Your task to perform on an android device: turn pop-ups off in chrome Image 0: 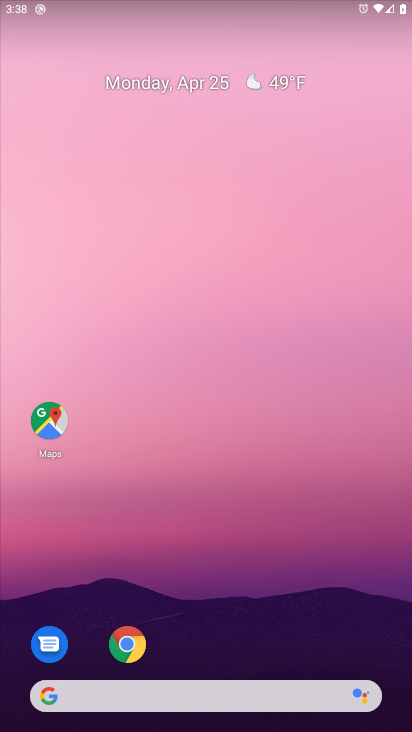
Step 0: click (122, 655)
Your task to perform on an android device: turn pop-ups off in chrome Image 1: 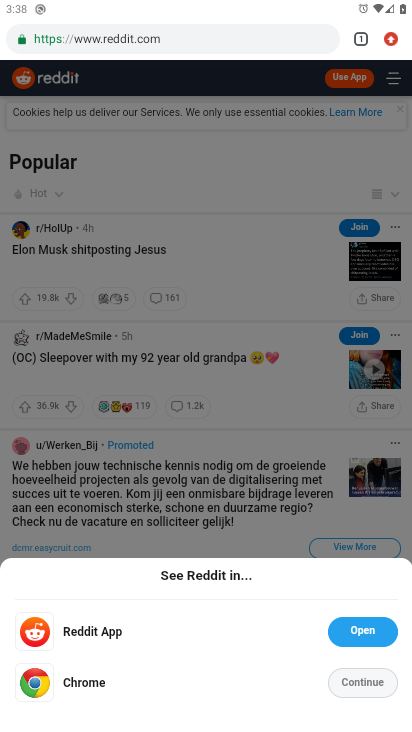
Step 1: click (395, 33)
Your task to perform on an android device: turn pop-ups off in chrome Image 2: 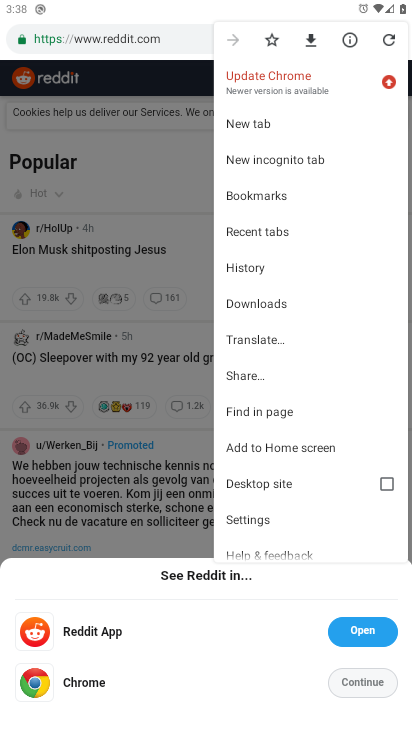
Step 2: click (275, 518)
Your task to perform on an android device: turn pop-ups off in chrome Image 3: 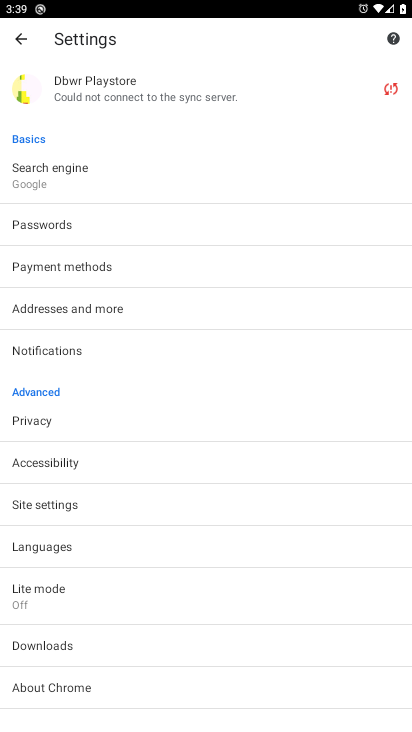
Step 3: click (174, 494)
Your task to perform on an android device: turn pop-ups off in chrome Image 4: 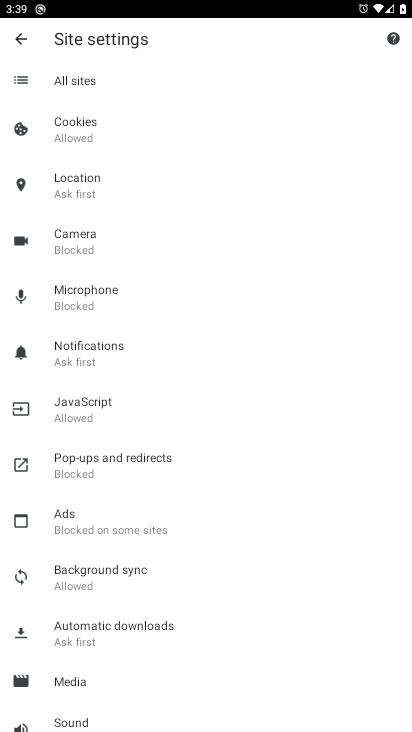
Step 4: click (155, 471)
Your task to perform on an android device: turn pop-ups off in chrome Image 5: 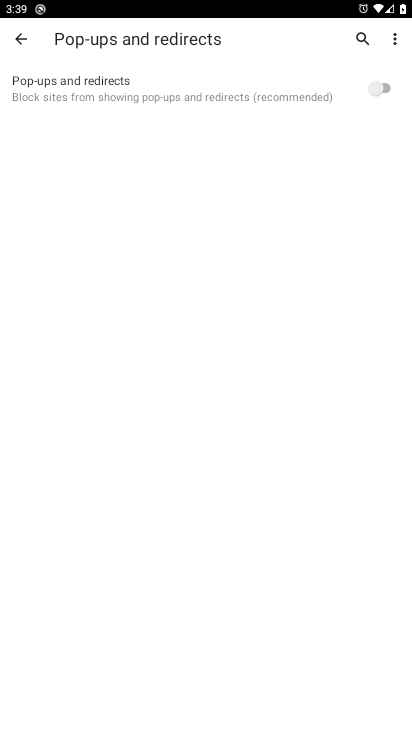
Step 5: click (362, 89)
Your task to perform on an android device: turn pop-ups off in chrome Image 6: 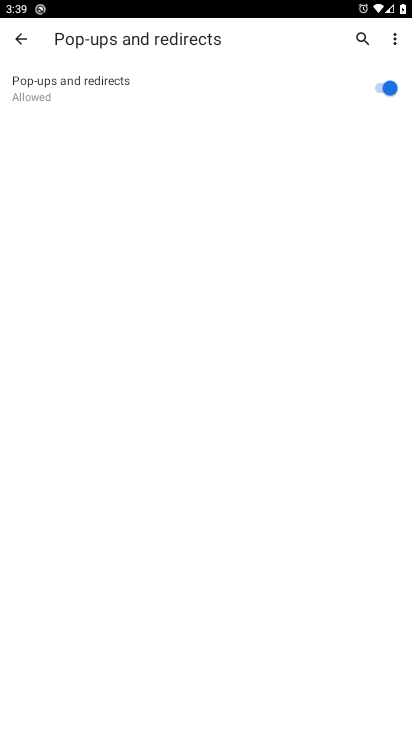
Step 6: task complete